Your task to perform on an android device: change the clock display to digital Image 0: 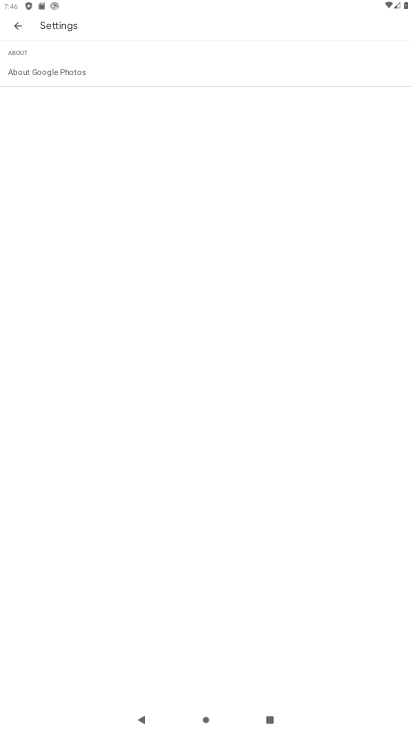
Step 0: press home button
Your task to perform on an android device: change the clock display to digital Image 1: 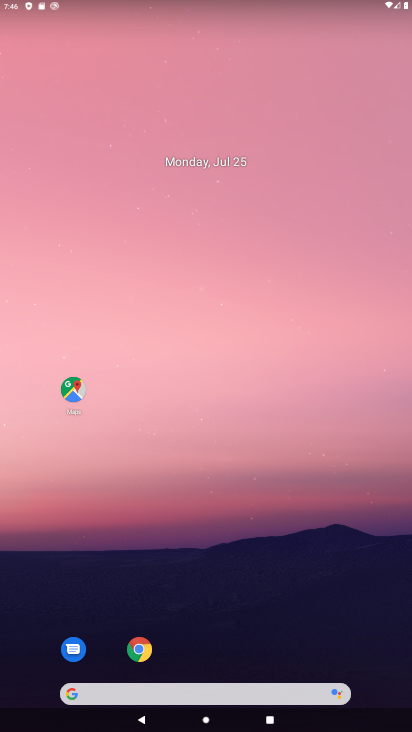
Step 1: drag from (382, 674) to (344, 245)
Your task to perform on an android device: change the clock display to digital Image 2: 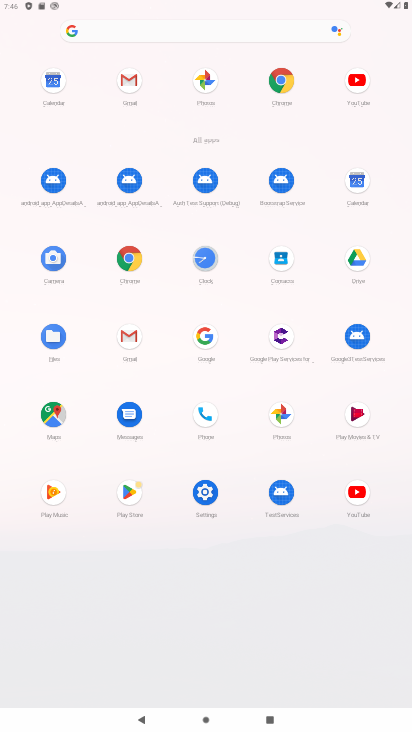
Step 2: click (207, 257)
Your task to perform on an android device: change the clock display to digital Image 3: 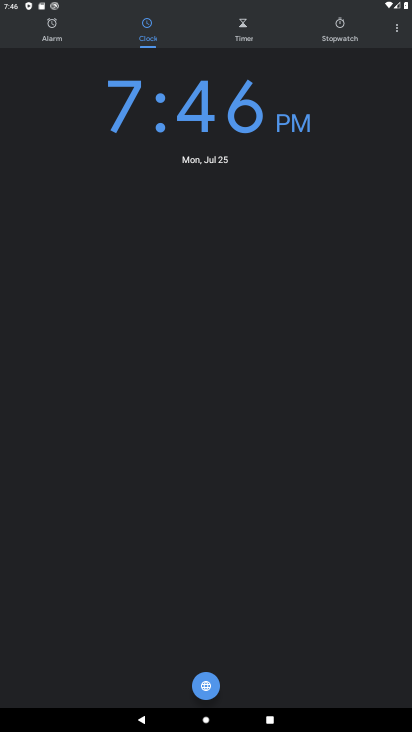
Step 3: click (396, 34)
Your task to perform on an android device: change the clock display to digital Image 4: 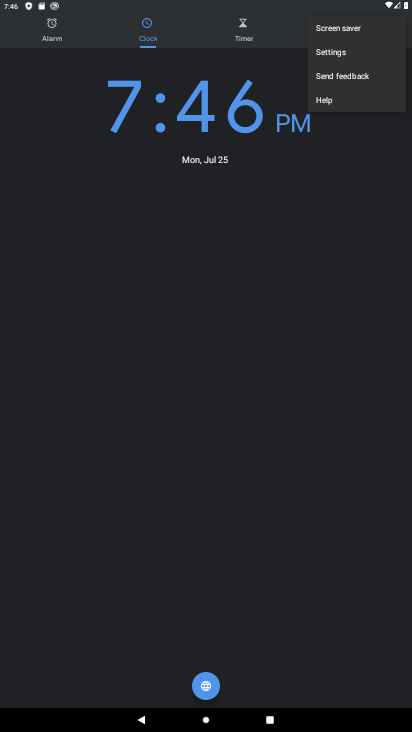
Step 4: click (328, 54)
Your task to perform on an android device: change the clock display to digital Image 5: 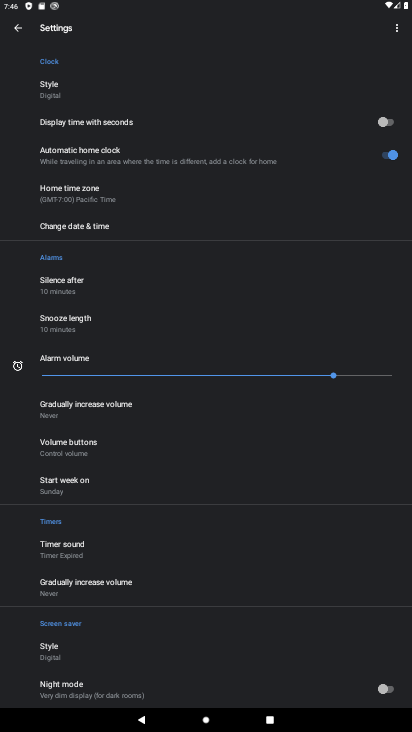
Step 5: task complete